Your task to perform on an android device: change timer sound Image 0: 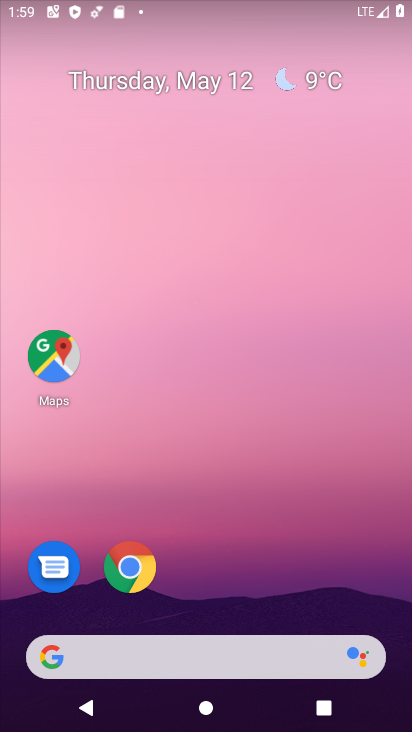
Step 0: drag from (194, 613) to (217, 125)
Your task to perform on an android device: change timer sound Image 1: 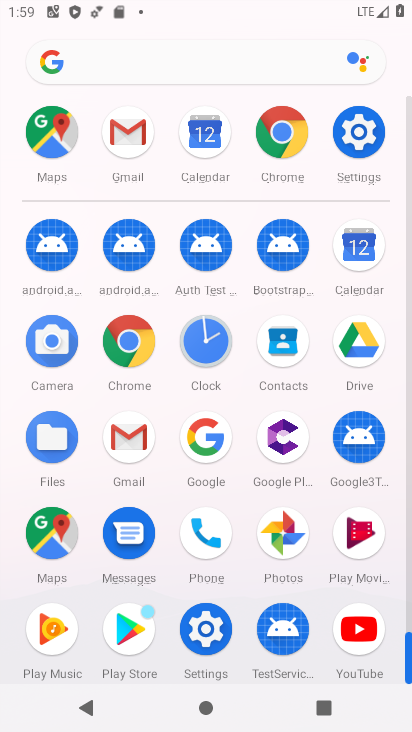
Step 1: click (355, 143)
Your task to perform on an android device: change timer sound Image 2: 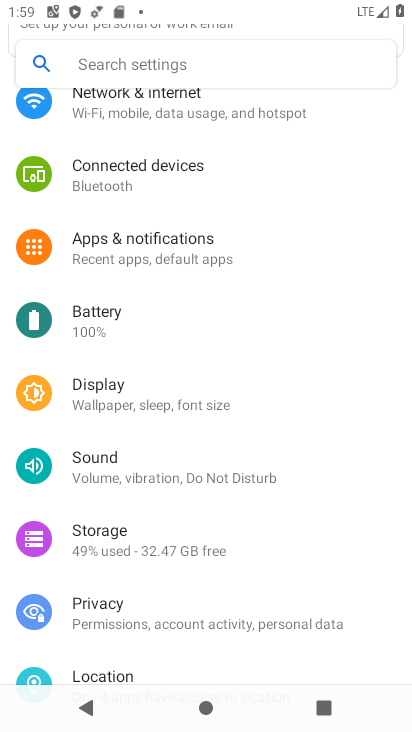
Step 2: drag from (176, 218) to (125, 466)
Your task to perform on an android device: change timer sound Image 3: 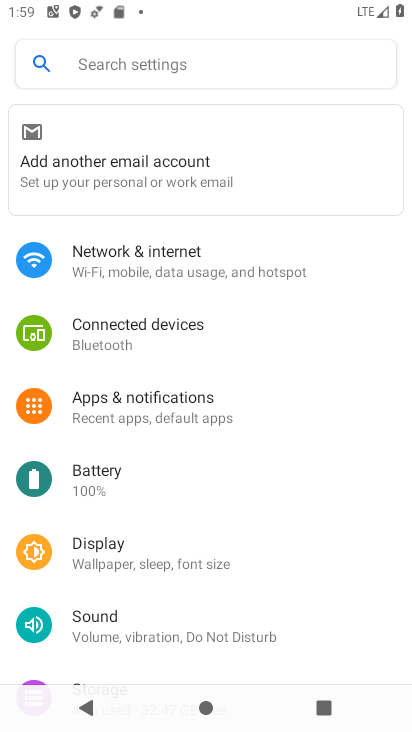
Step 3: drag from (129, 533) to (167, 200)
Your task to perform on an android device: change timer sound Image 4: 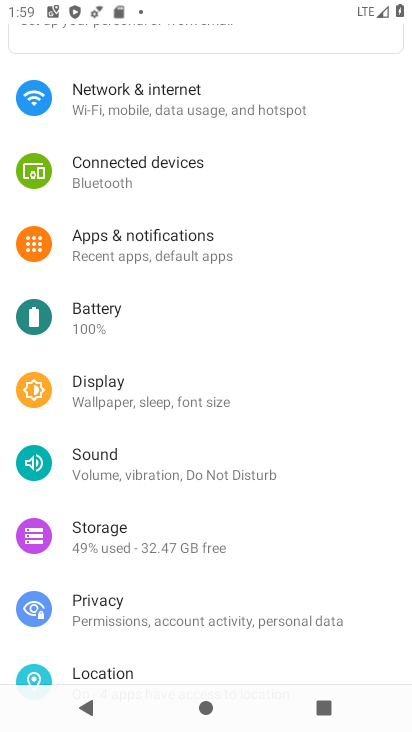
Step 4: press back button
Your task to perform on an android device: change timer sound Image 5: 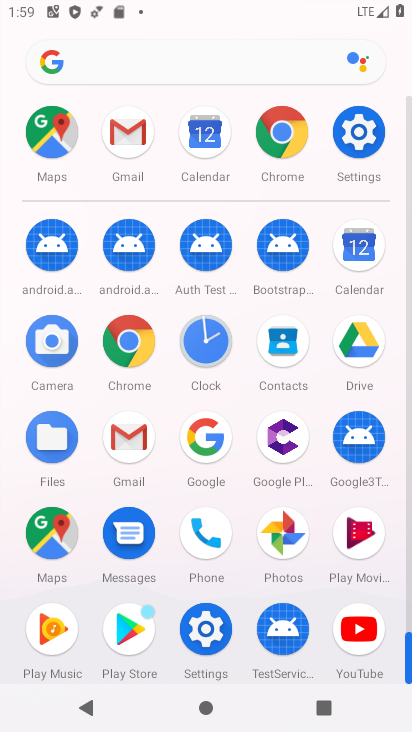
Step 5: click (204, 360)
Your task to perform on an android device: change timer sound Image 6: 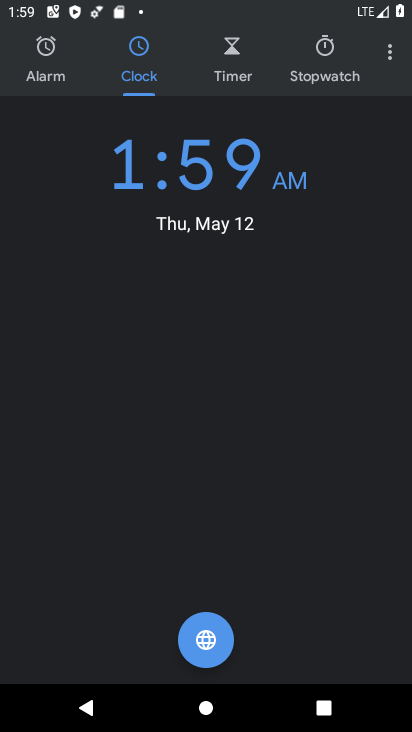
Step 6: click (396, 50)
Your task to perform on an android device: change timer sound Image 7: 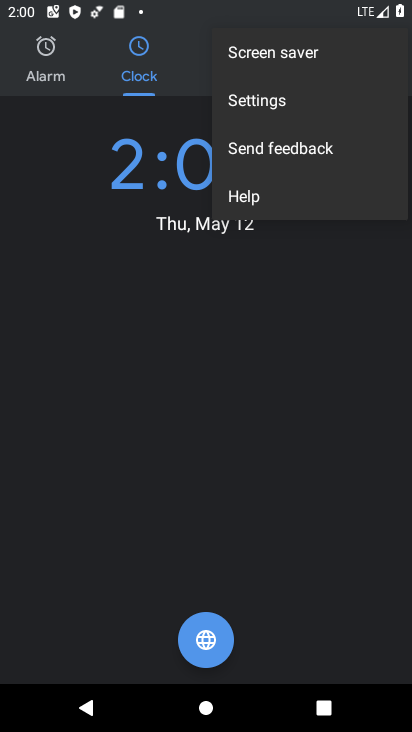
Step 7: click (264, 101)
Your task to perform on an android device: change timer sound Image 8: 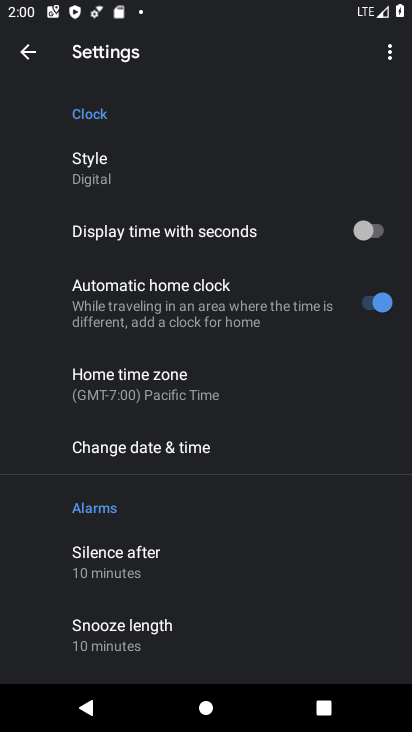
Step 8: drag from (221, 574) to (270, 147)
Your task to perform on an android device: change timer sound Image 9: 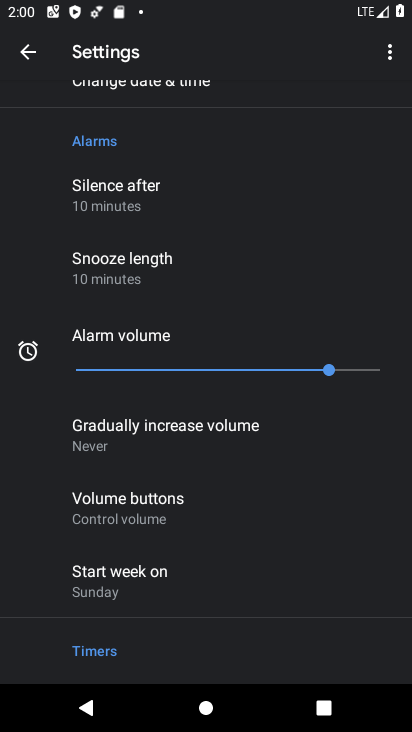
Step 9: drag from (302, 257) to (308, 212)
Your task to perform on an android device: change timer sound Image 10: 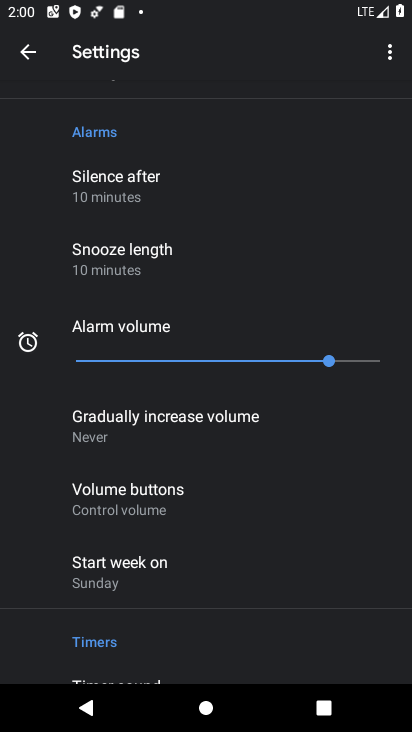
Step 10: drag from (176, 584) to (226, 202)
Your task to perform on an android device: change timer sound Image 11: 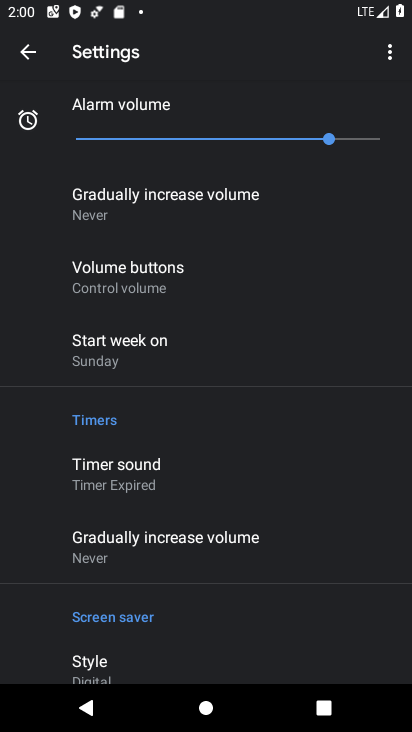
Step 11: click (119, 477)
Your task to perform on an android device: change timer sound Image 12: 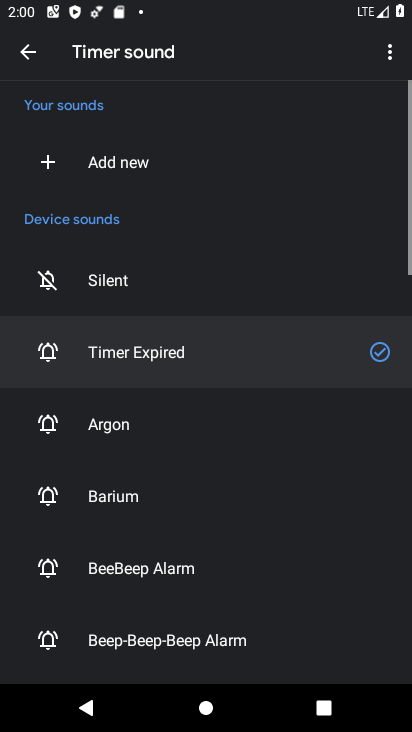
Step 12: click (128, 441)
Your task to perform on an android device: change timer sound Image 13: 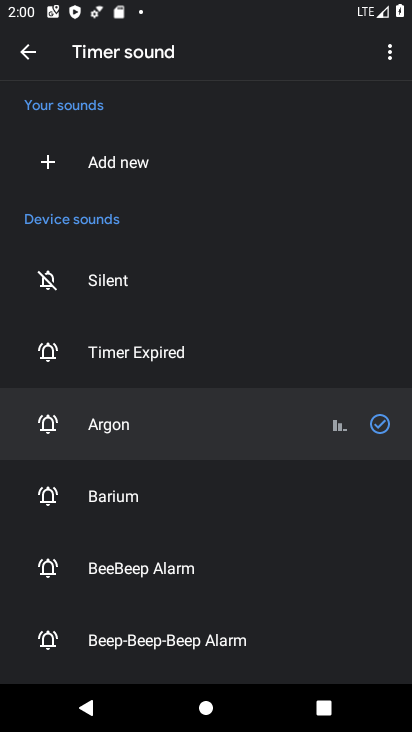
Step 13: task complete